Your task to perform on an android device: search for starred emails in the gmail app Image 0: 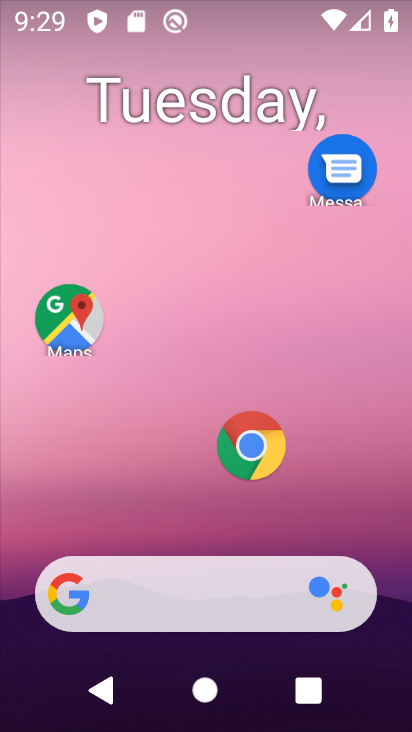
Step 0: drag from (10, 645) to (152, 433)
Your task to perform on an android device: search for starred emails in the gmail app Image 1: 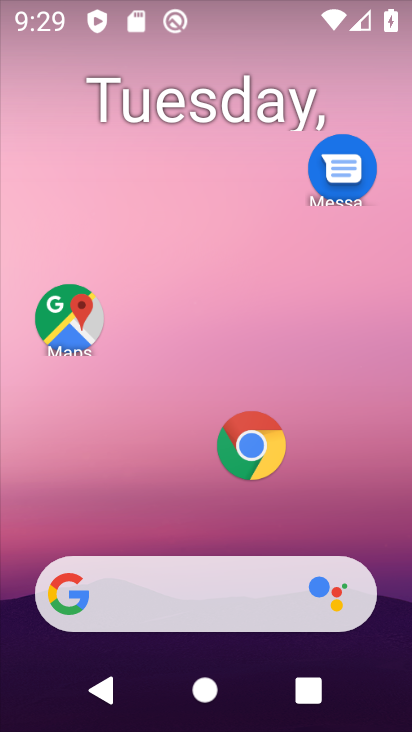
Step 1: drag from (68, 553) to (163, 303)
Your task to perform on an android device: search for starred emails in the gmail app Image 2: 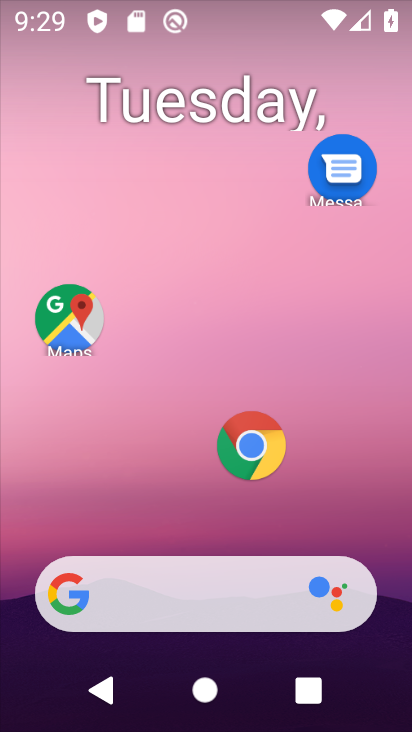
Step 2: drag from (108, 418) to (220, 171)
Your task to perform on an android device: search for starred emails in the gmail app Image 3: 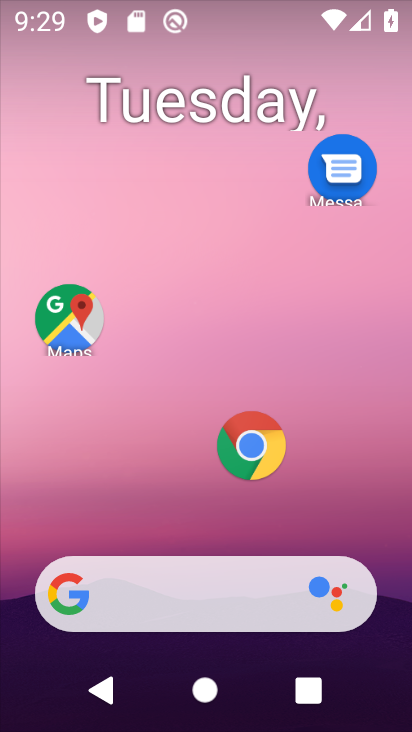
Step 3: drag from (190, 321) to (229, 255)
Your task to perform on an android device: search for starred emails in the gmail app Image 4: 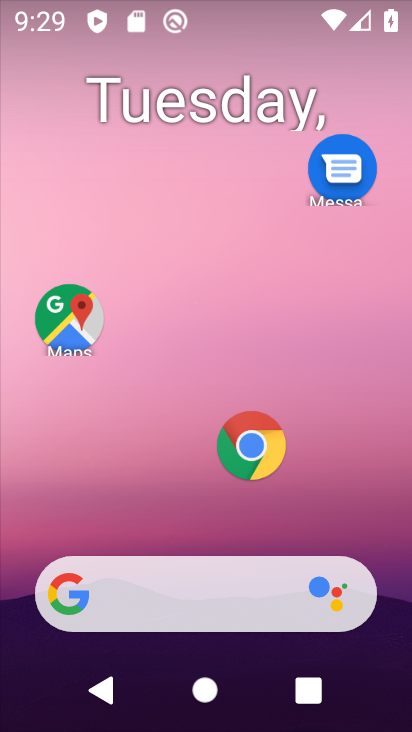
Step 4: drag from (99, 506) to (206, 260)
Your task to perform on an android device: search for starred emails in the gmail app Image 5: 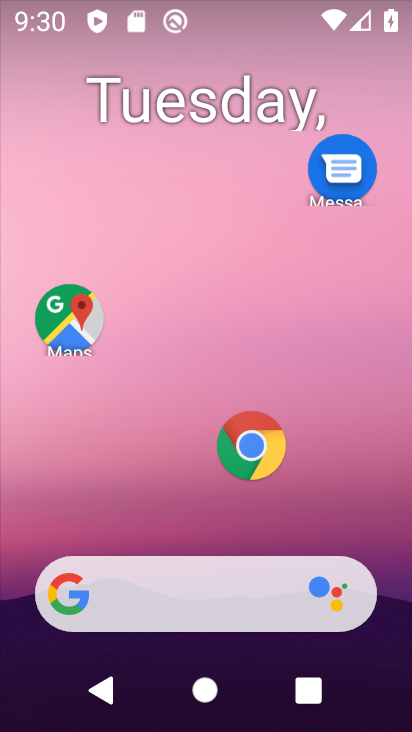
Step 5: drag from (95, 572) to (255, 270)
Your task to perform on an android device: search for starred emails in the gmail app Image 6: 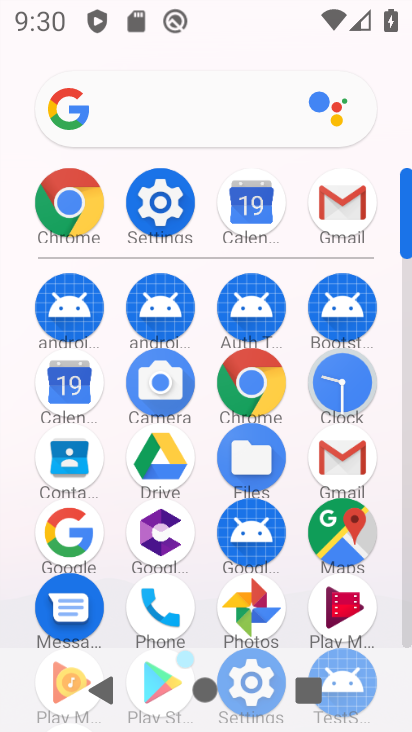
Step 6: click (324, 219)
Your task to perform on an android device: search for starred emails in the gmail app Image 7: 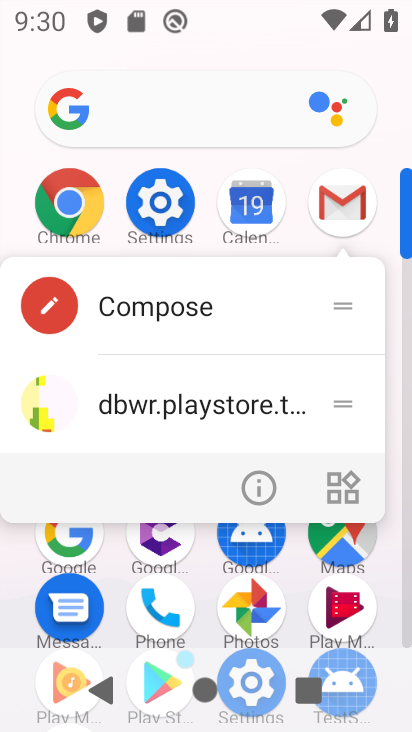
Step 7: click (351, 193)
Your task to perform on an android device: search for starred emails in the gmail app Image 8: 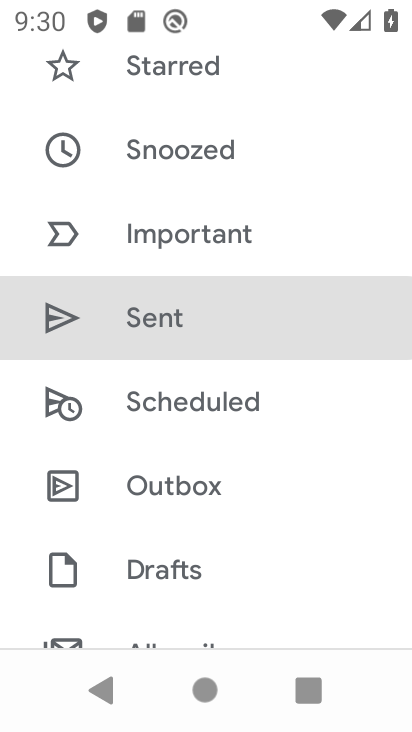
Step 8: click (166, 64)
Your task to perform on an android device: search for starred emails in the gmail app Image 9: 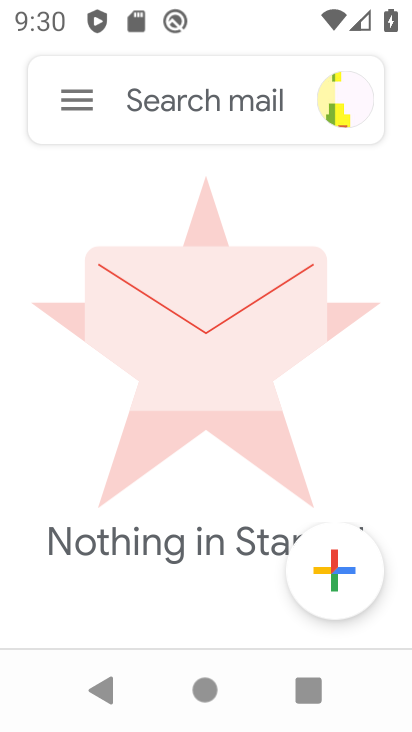
Step 9: task complete